Your task to perform on an android device: Go to eBay Image 0: 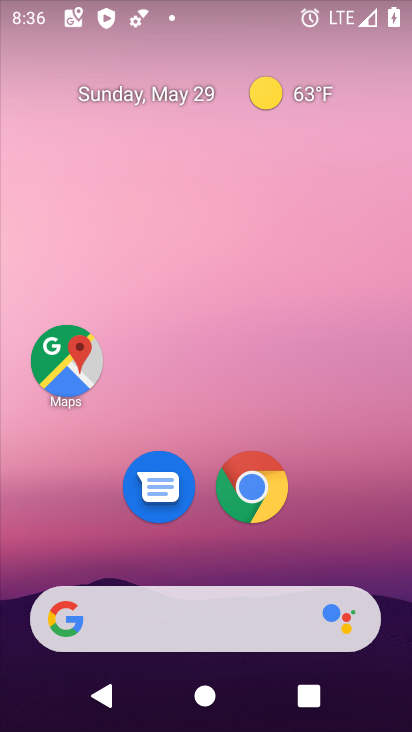
Step 0: drag from (220, 677) to (297, 128)
Your task to perform on an android device: Go to eBay Image 1: 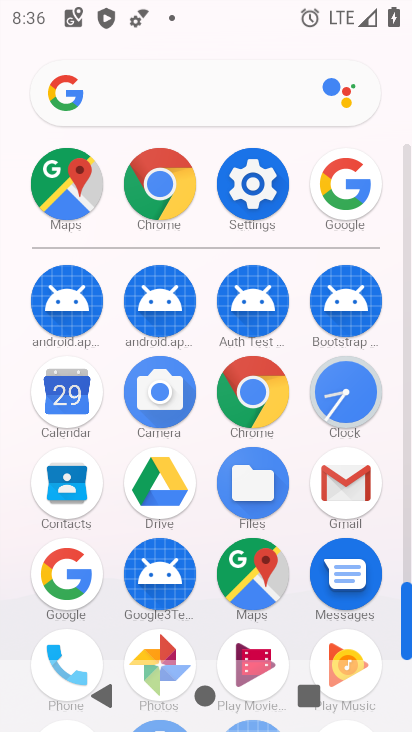
Step 1: click (165, 201)
Your task to perform on an android device: Go to eBay Image 2: 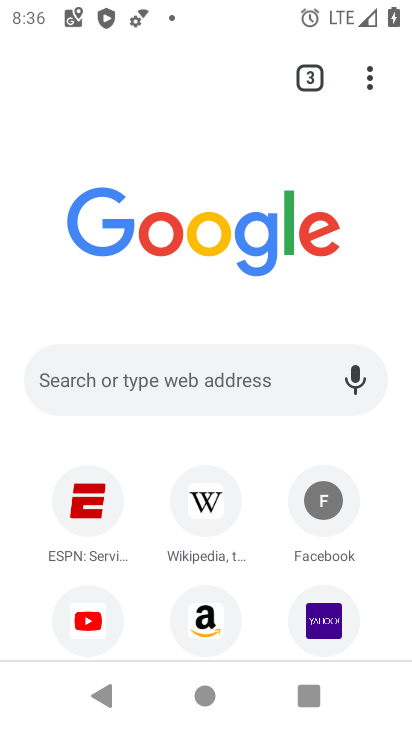
Step 2: drag from (201, 560) to (244, 305)
Your task to perform on an android device: Go to eBay Image 3: 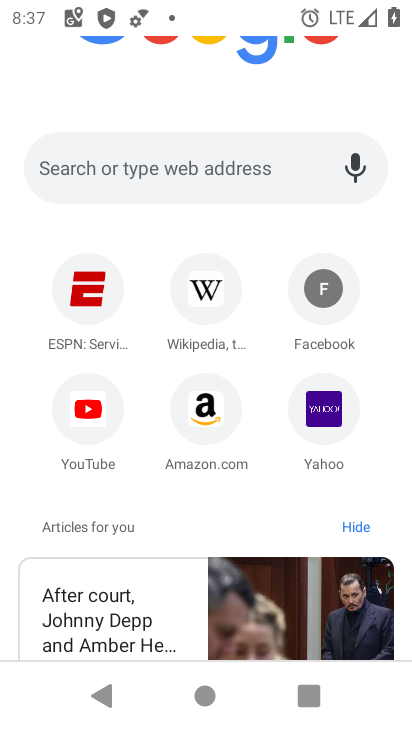
Step 3: click (226, 166)
Your task to perform on an android device: Go to eBay Image 4: 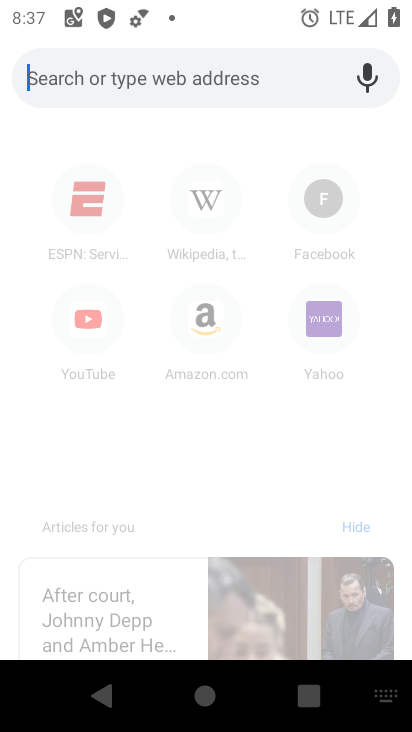
Step 4: type "ebay"
Your task to perform on an android device: Go to eBay Image 5: 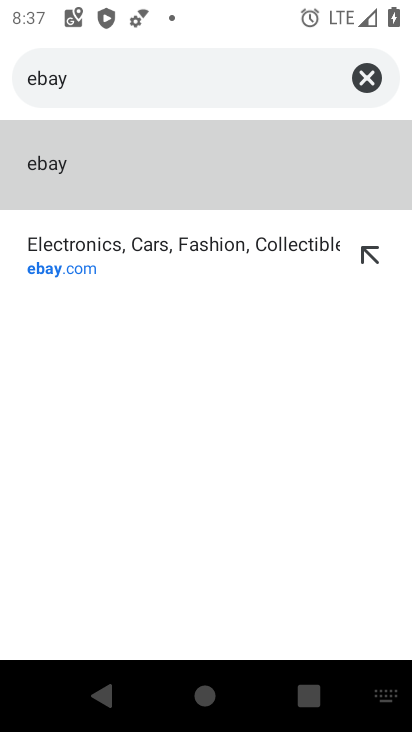
Step 5: click (200, 278)
Your task to perform on an android device: Go to eBay Image 6: 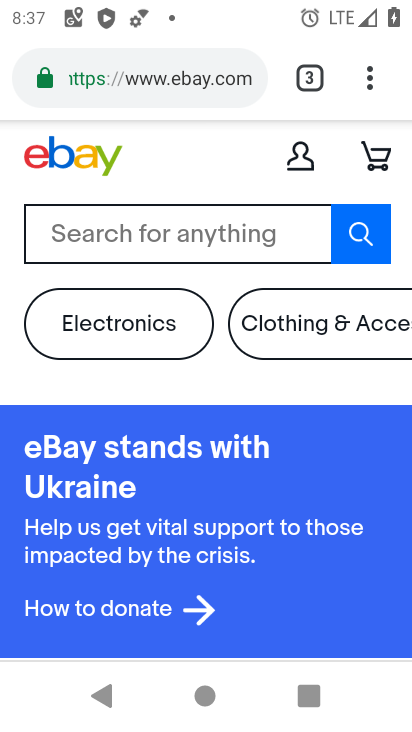
Step 6: task complete